Your task to perform on an android device: What is the recent news? Image 0: 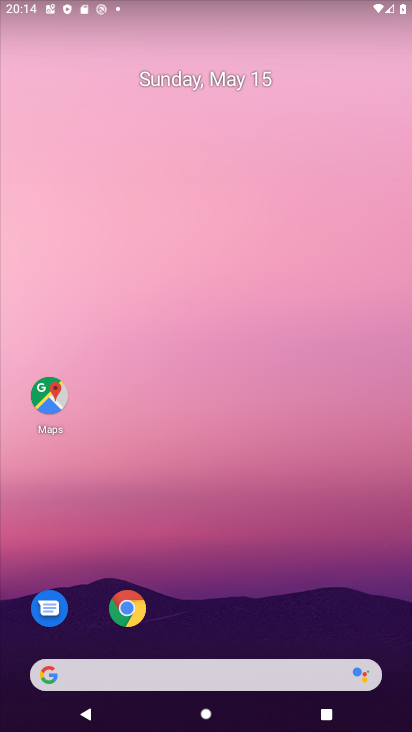
Step 0: drag from (254, 622) to (271, 132)
Your task to perform on an android device: What is the recent news? Image 1: 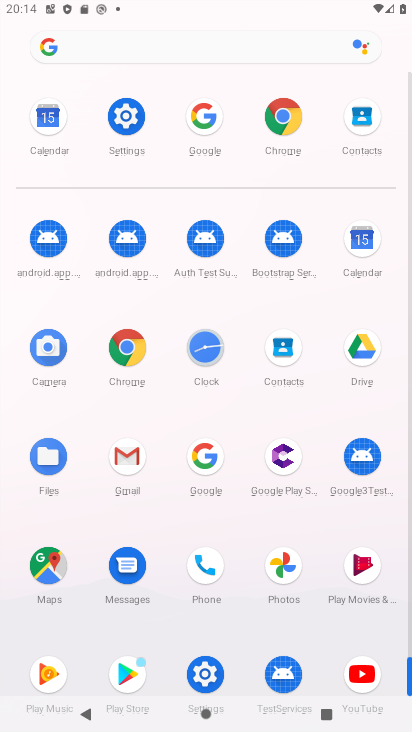
Step 1: click (208, 466)
Your task to perform on an android device: What is the recent news? Image 2: 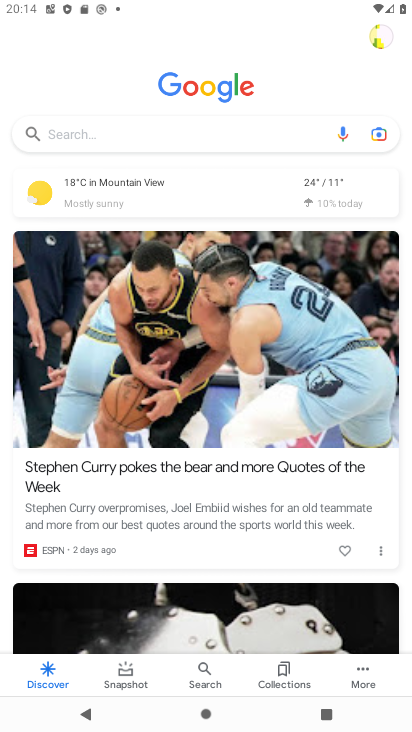
Step 2: click (163, 125)
Your task to perform on an android device: What is the recent news? Image 3: 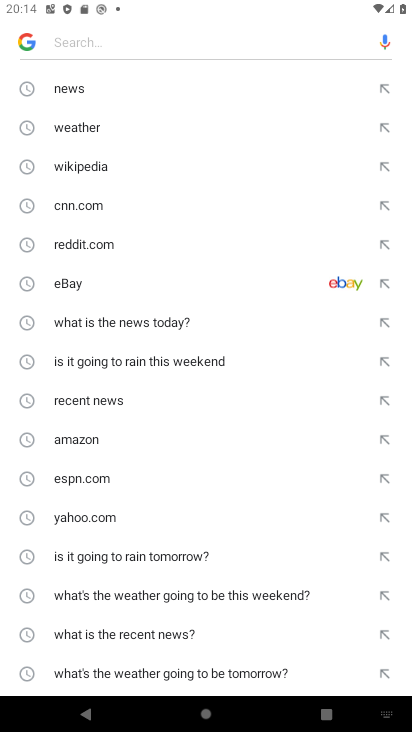
Step 3: click (145, 632)
Your task to perform on an android device: What is the recent news? Image 4: 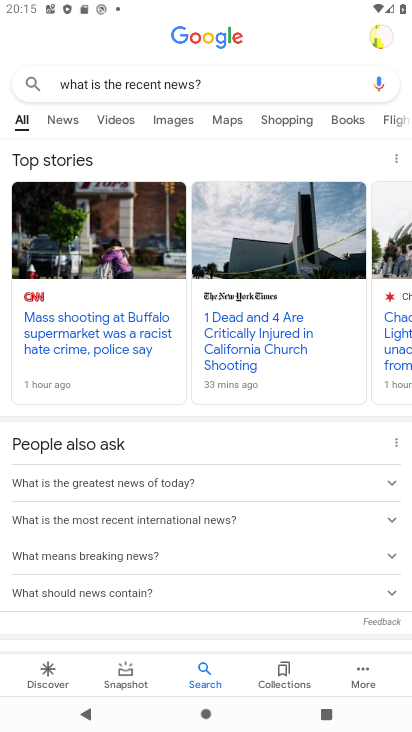
Step 4: task complete